Your task to perform on an android device: Search for hotels in Las Vegas Image 0: 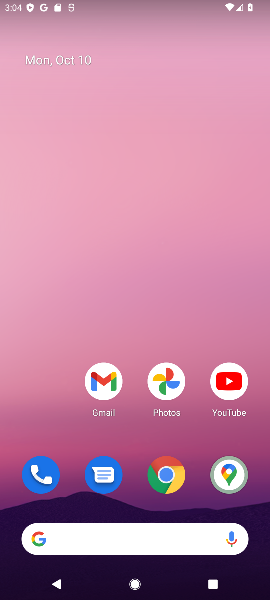
Step 0: drag from (120, 595) to (99, 270)
Your task to perform on an android device: Search for hotels in Las Vegas Image 1: 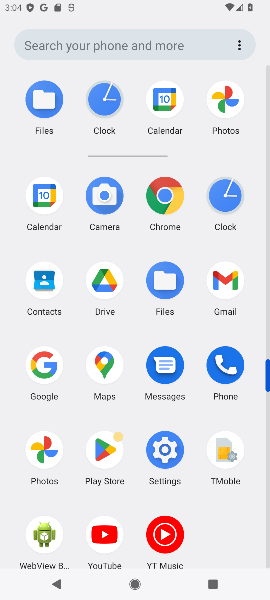
Step 1: click (42, 384)
Your task to perform on an android device: Search for hotels in Las Vegas Image 2: 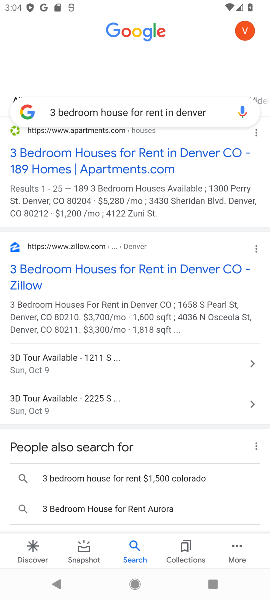
Step 2: click (225, 103)
Your task to perform on an android device: Search for hotels in Las Vegas Image 3: 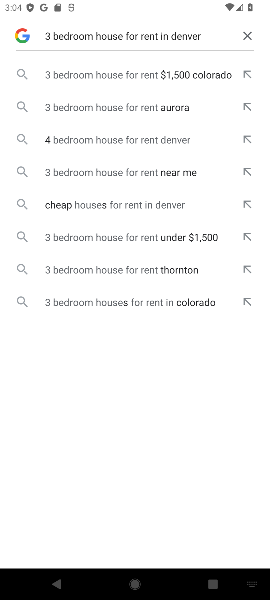
Step 3: click (245, 32)
Your task to perform on an android device: Search for hotels in Las Vegas Image 4: 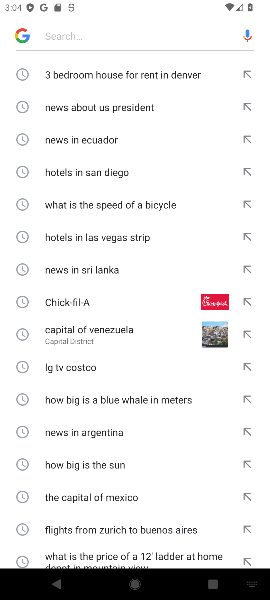
Step 4: type "hotels in Las Vegas"
Your task to perform on an android device: Search for hotels in Las Vegas Image 5: 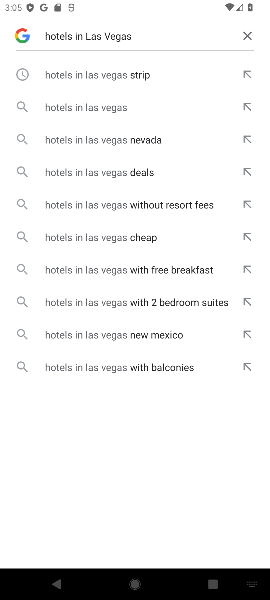
Step 5: click (119, 102)
Your task to perform on an android device: Search for hotels in Las Vegas Image 6: 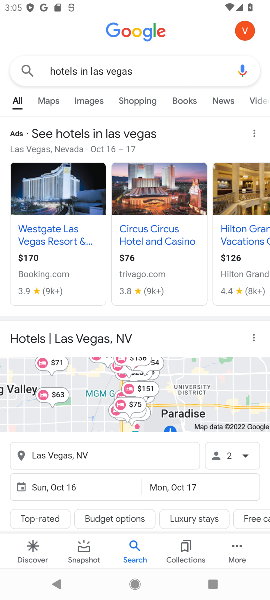
Step 6: task complete